Your task to perform on an android device: Check the weather Image 0: 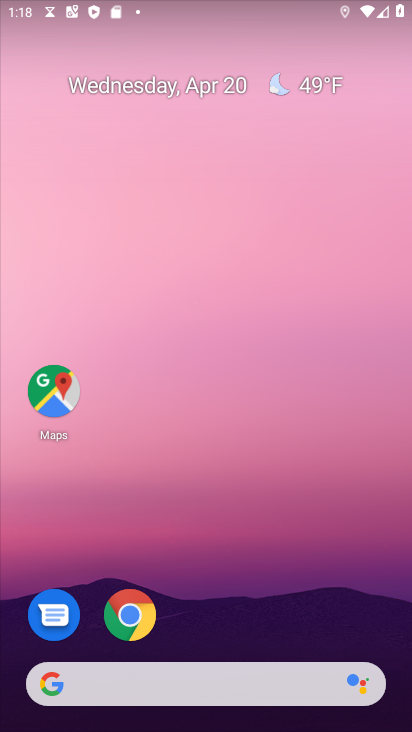
Step 0: click (114, 691)
Your task to perform on an android device: Check the weather Image 1: 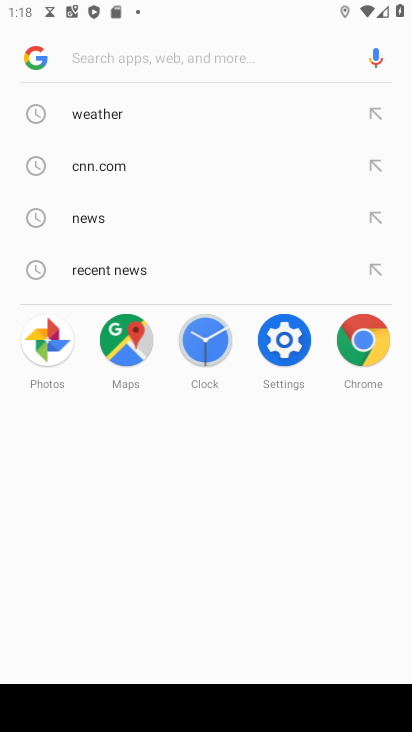
Step 1: click (141, 113)
Your task to perform on an android device: Check the weather Image 2: 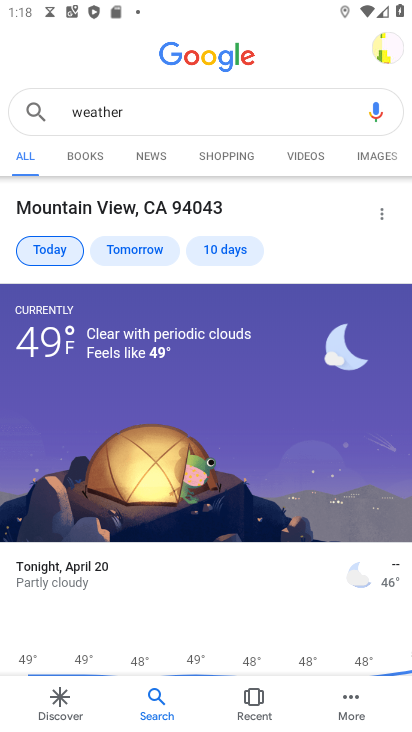
Step 2: task complete